Your task to perform on an android device: toggle notification dots Image 0: 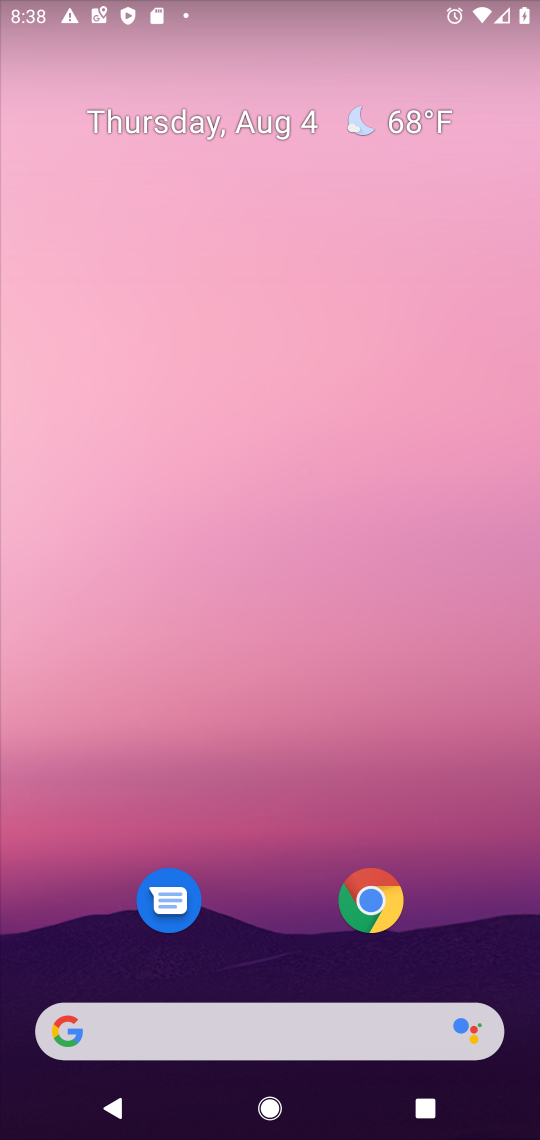
Step 0: drag from (207, 1030) to (188, 73)
Your task to perform on an android device: toggle notification dots Image 1: 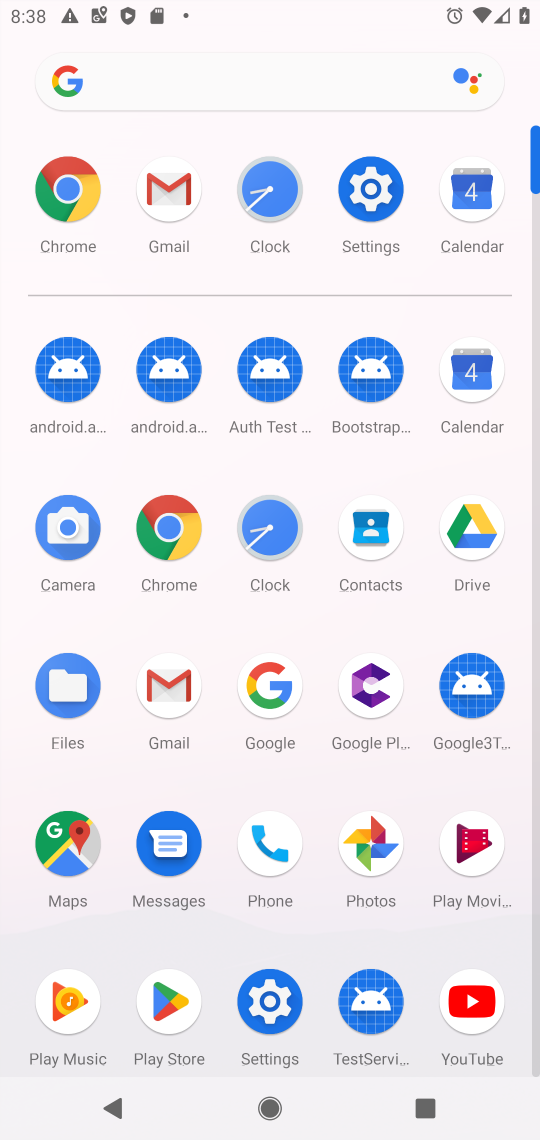
Step 1: click (373, 190)
Your task to perform on an android device: toggle notification dots Image 2: 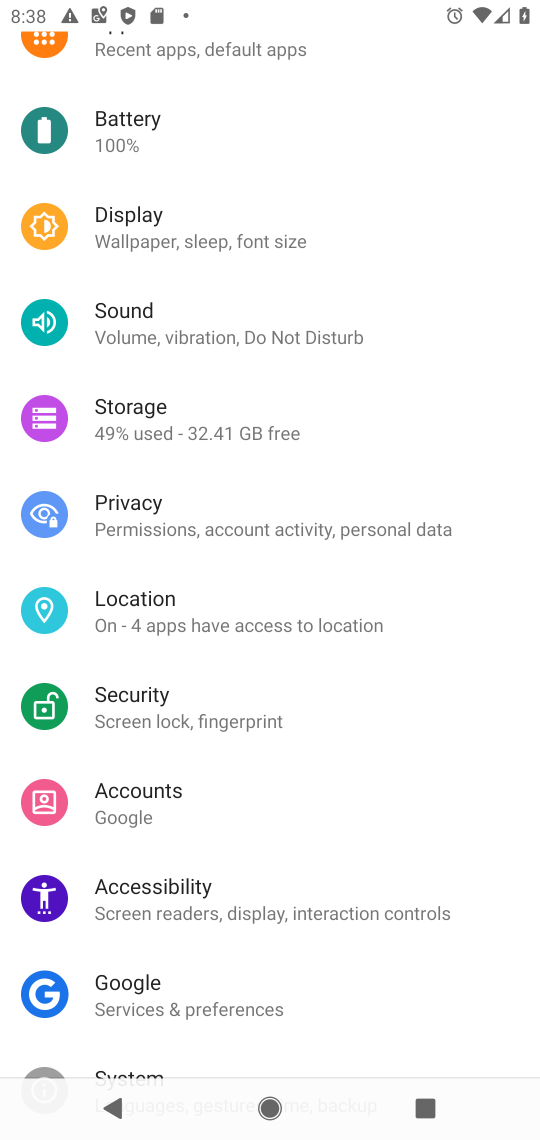
Step 2: drag from (360, 186) to (352, 346)
Your task to perform on an android device: toggle notification dots Image 3: 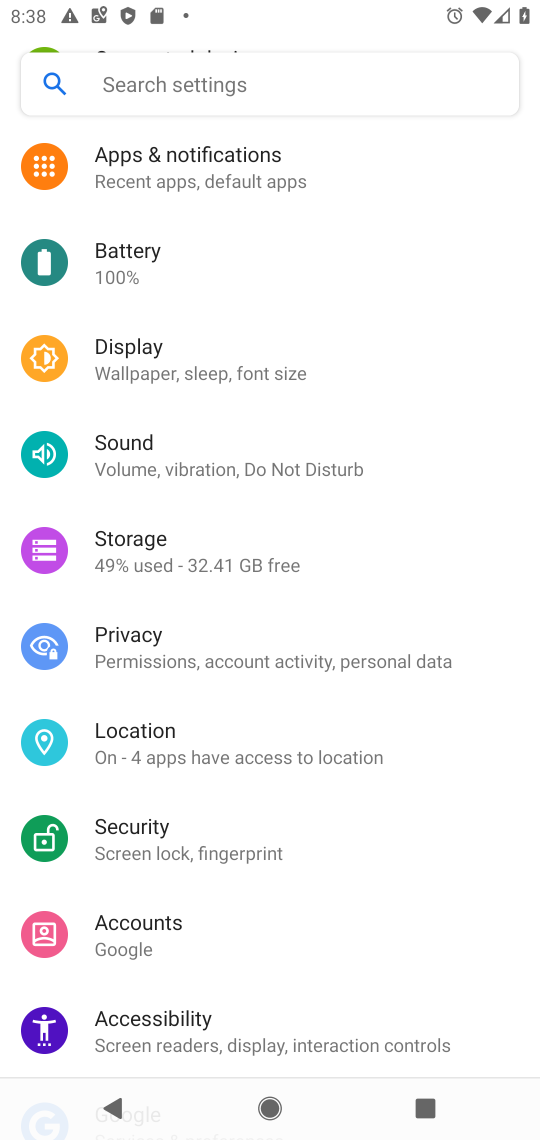
Step 3: click (220, 171)
Your task to perform on an android device: toggle notification dots Image 4: 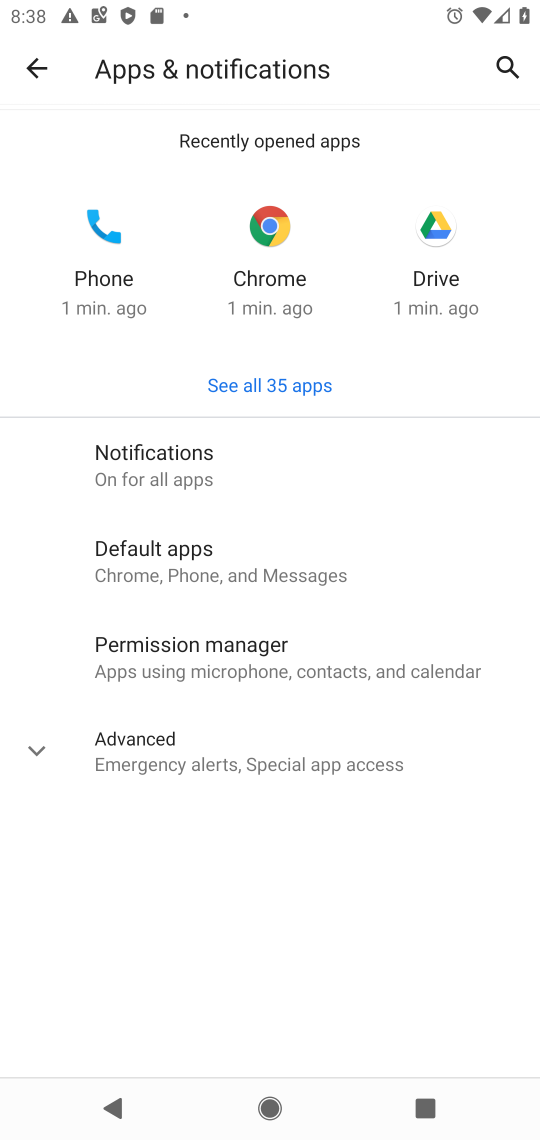
Step 4: click (173, 450)
Your task to perform on an android device: toggle notification dots Image 5: 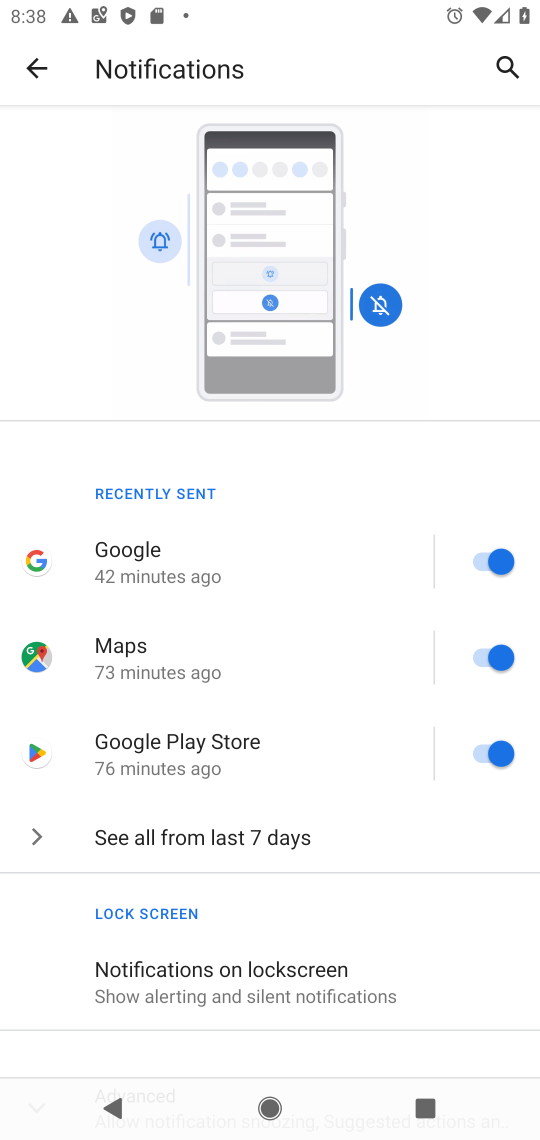
Step 5: drag from (307, 900) to (311, 669)
Your task to perform on an android device: toggle notification dots Image 6: 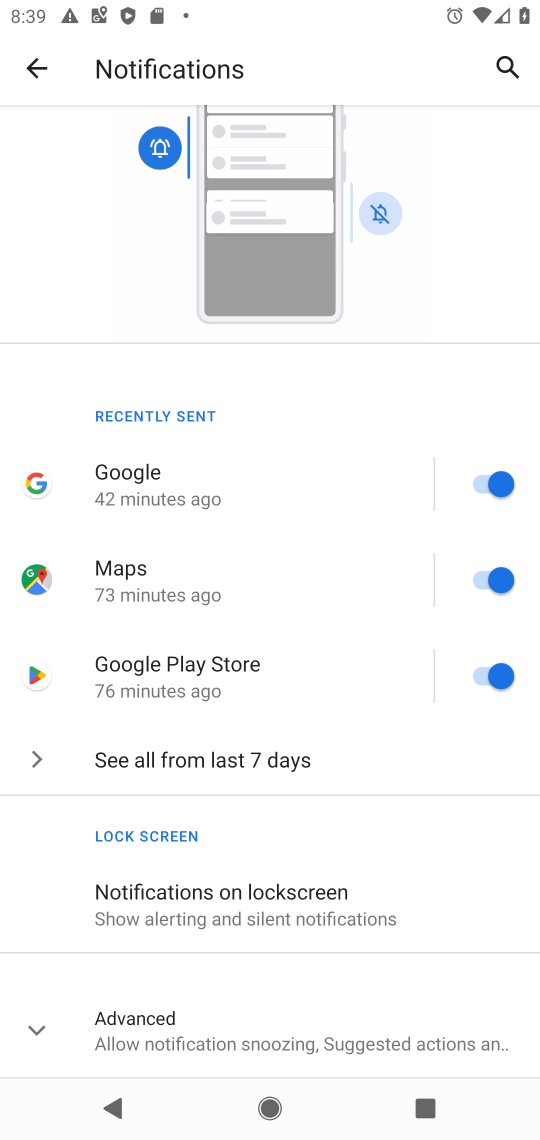
Step 6: click (129, 1038)
Your task to perform on an android device: toggle notification dots Image 7: 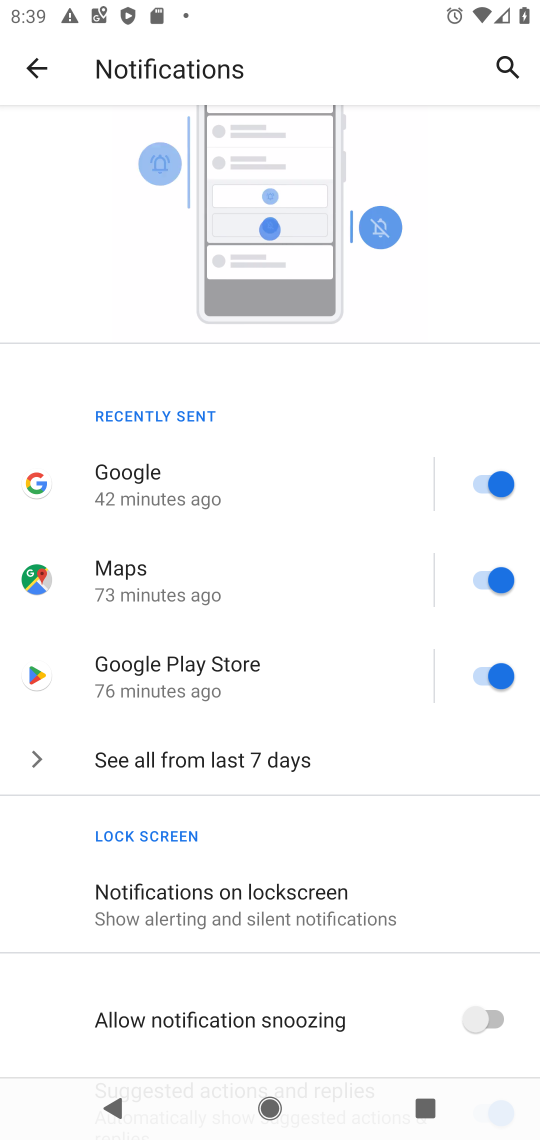
Step 7: drag from (130, 1034) to (89, 600)
Your task to perform on an android device: toggle notification dots Image 8: 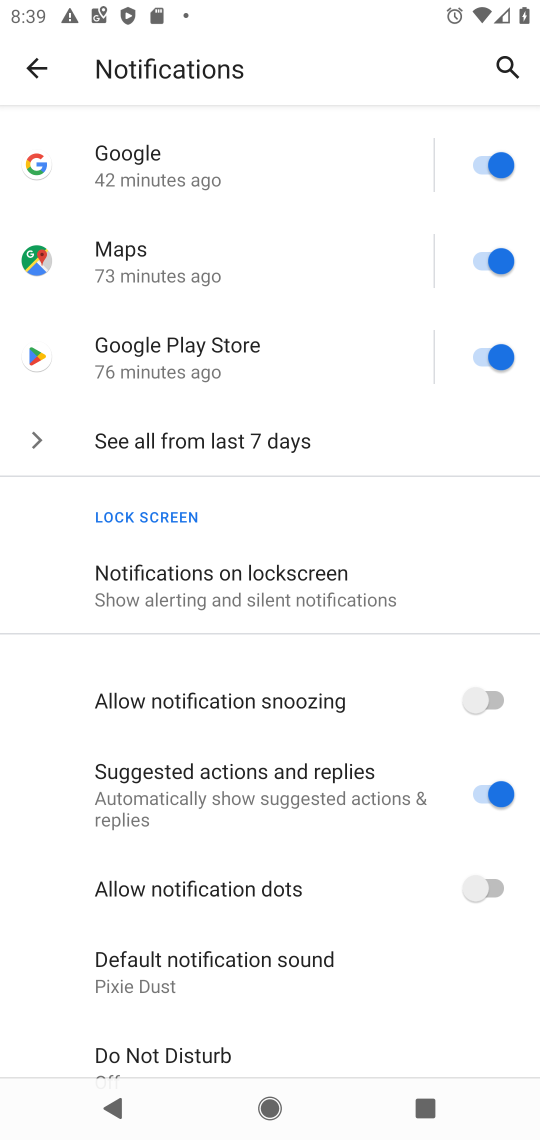
Step 8: click (469, 885)
Your task to perform on an android device: toggle notification dots Image 9: 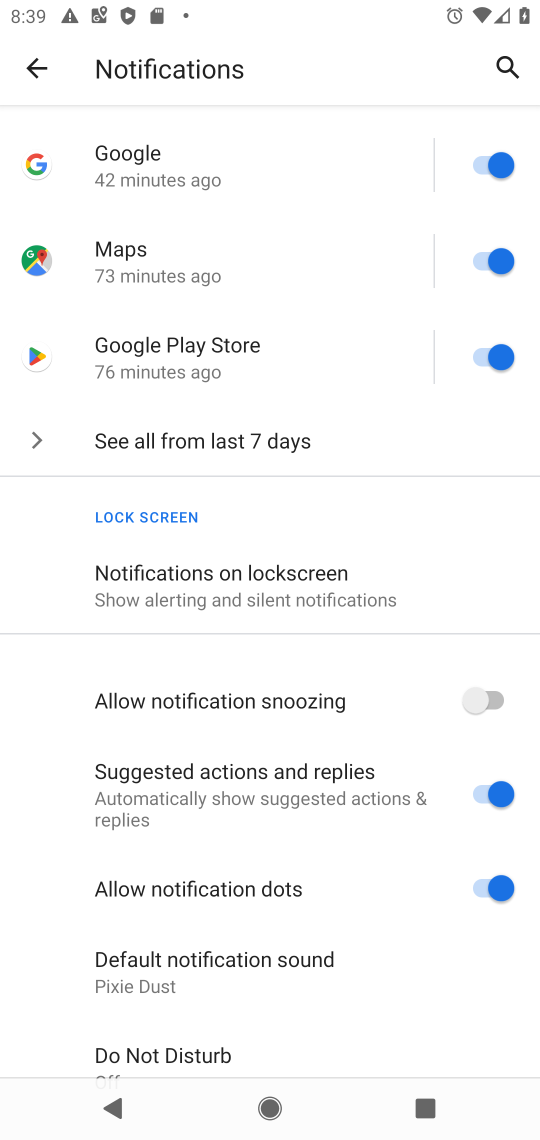
Step 9: task complete